Your task to perform on an android device: What's on my calendar today? Image 0: 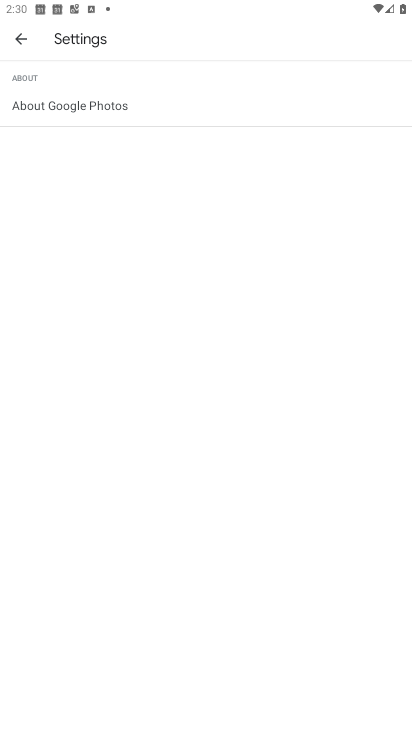
Step 0: press home button
Your task to perform on an android device: What's on my calendar today? Image 1: 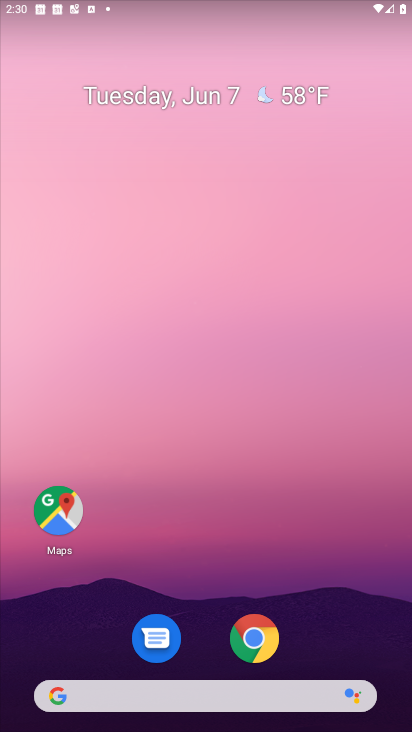
Step 1: drag from (187, 606) to (227, 253)
Your task to perform on an android device: What's on my calendar today? Image 2: 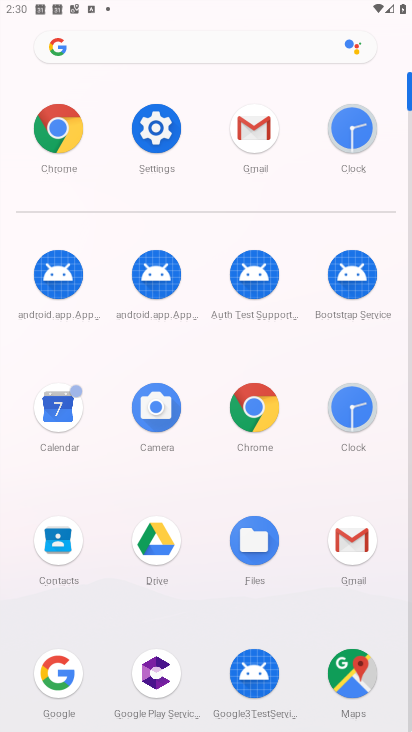
Step 2: click (52, 415)
Your task to perform on an android device: What's on my calendar today? Image 3: 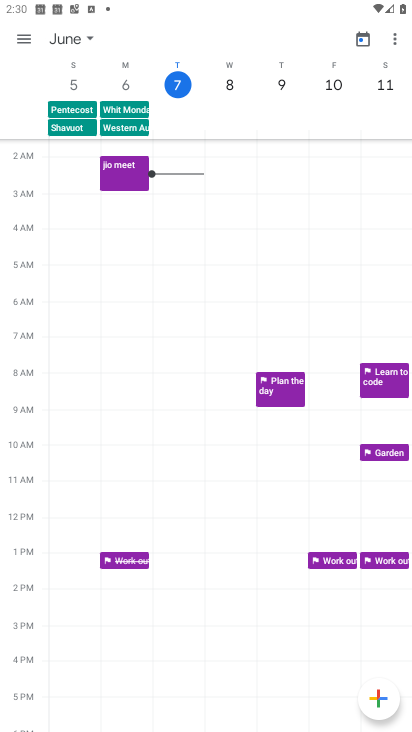
Step 3: click (76, 46)
Your task to perform on an android device: What's on my calendar today? Image 4: 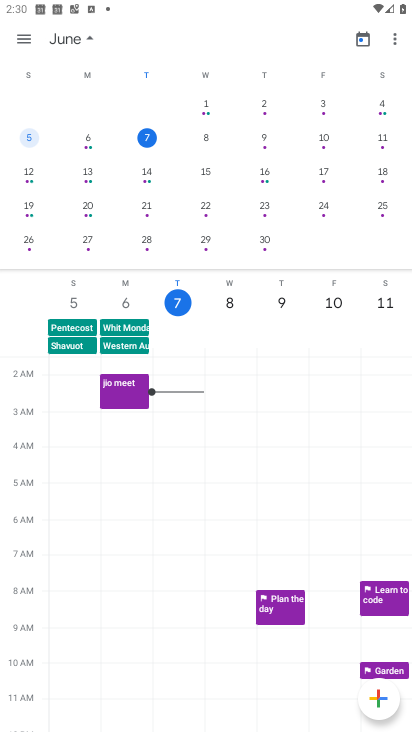
Step 4: task complete